Your task to perform on an android device: change timer sound Image 0: 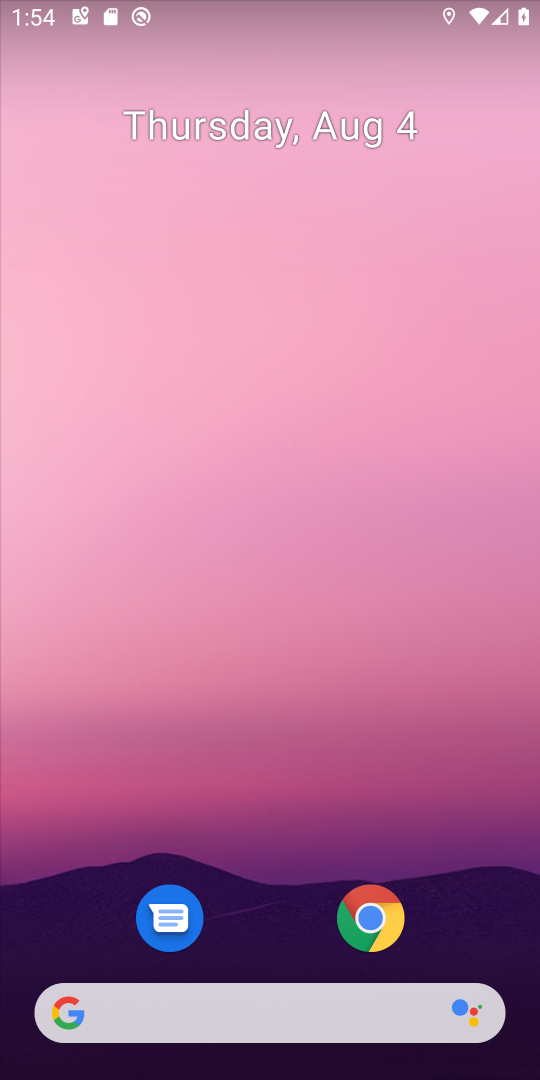
Step 0: drag from (265, 824) to (271, 374)
Your task to perform on an android device: change timer sound Image 1: 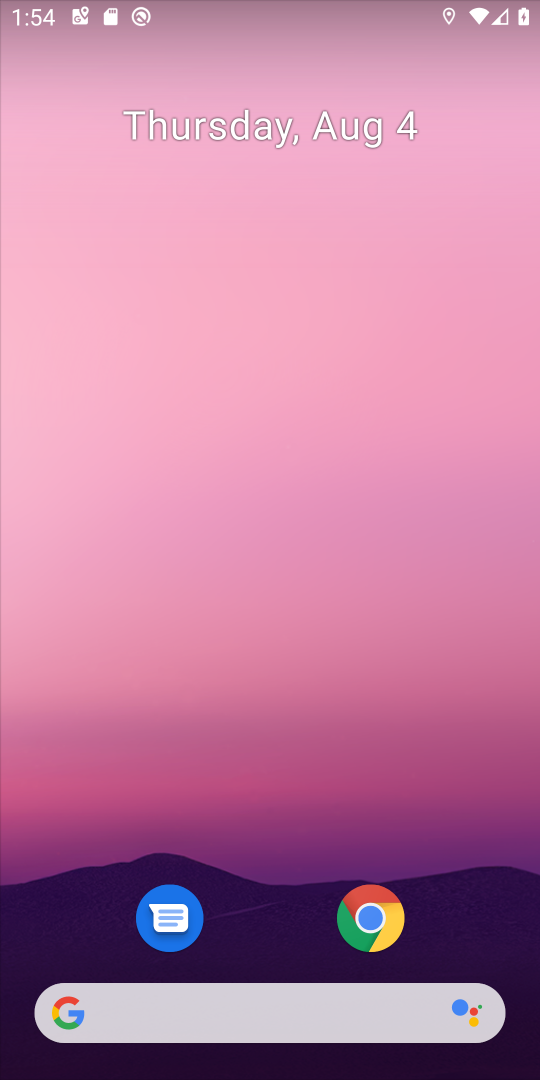
Step 1: drag from (290, 880) to (306, 316)
Your task to perform on an android device: change timer sound Image 2: 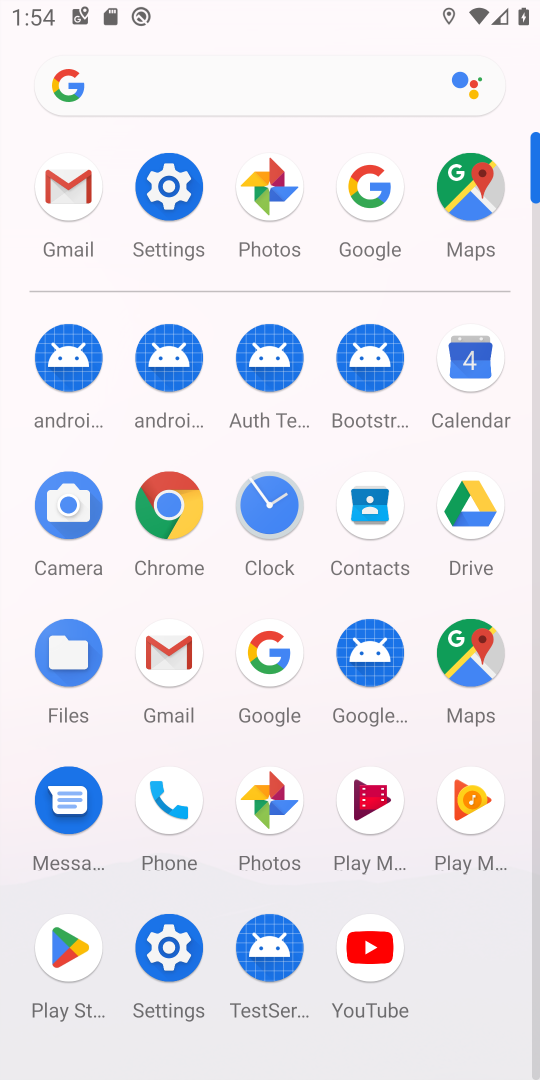
Step 2: click (280, 518)
Your task to perform on an android device: change timer sound Image 3: 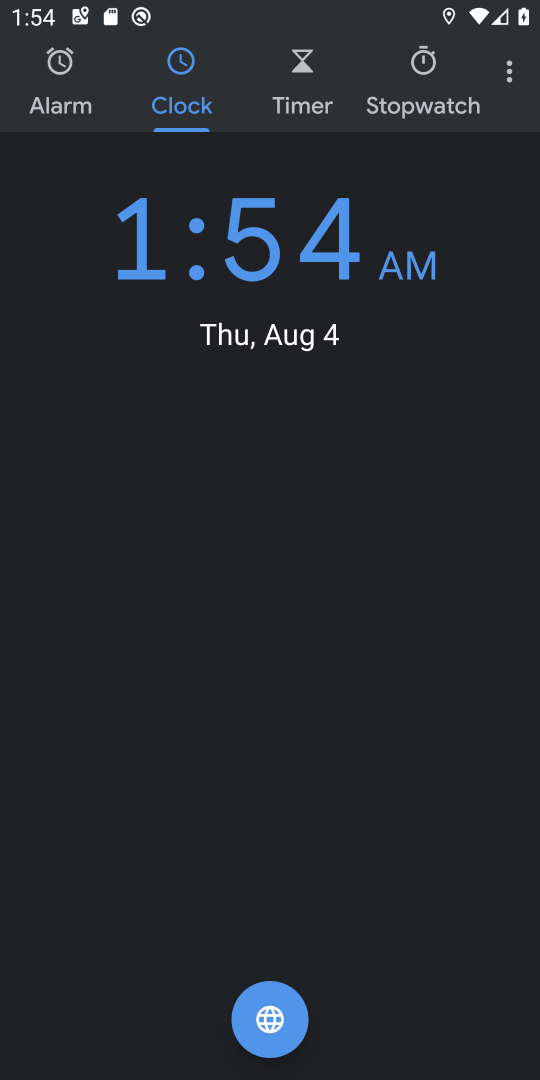
Step 3: click (503, 91)
Your task to perform on an android device: change timer sound Image 4: 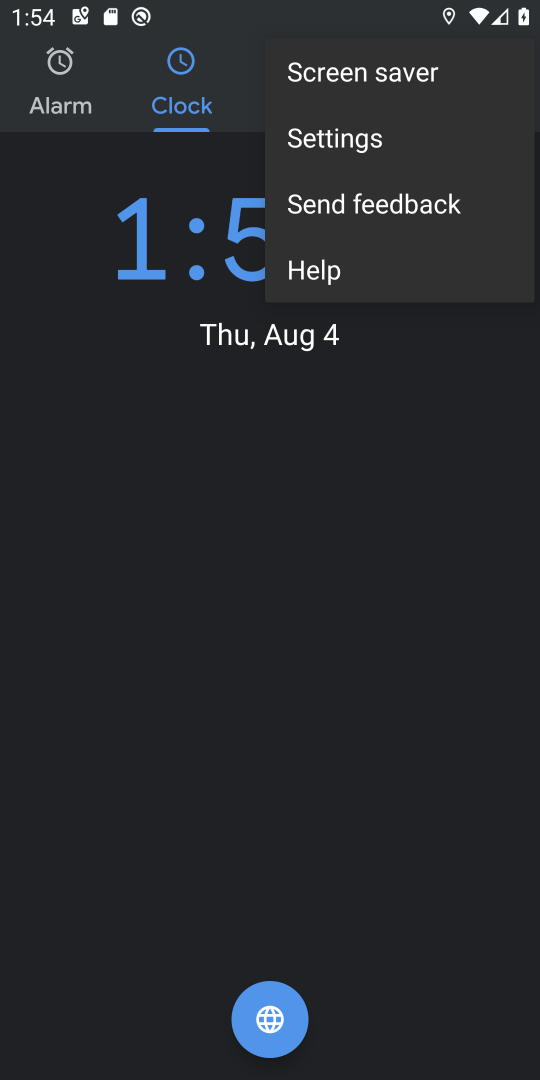
Step 4: click (392, 154)
Your task to perform on an android device: change timer sound Image 5: 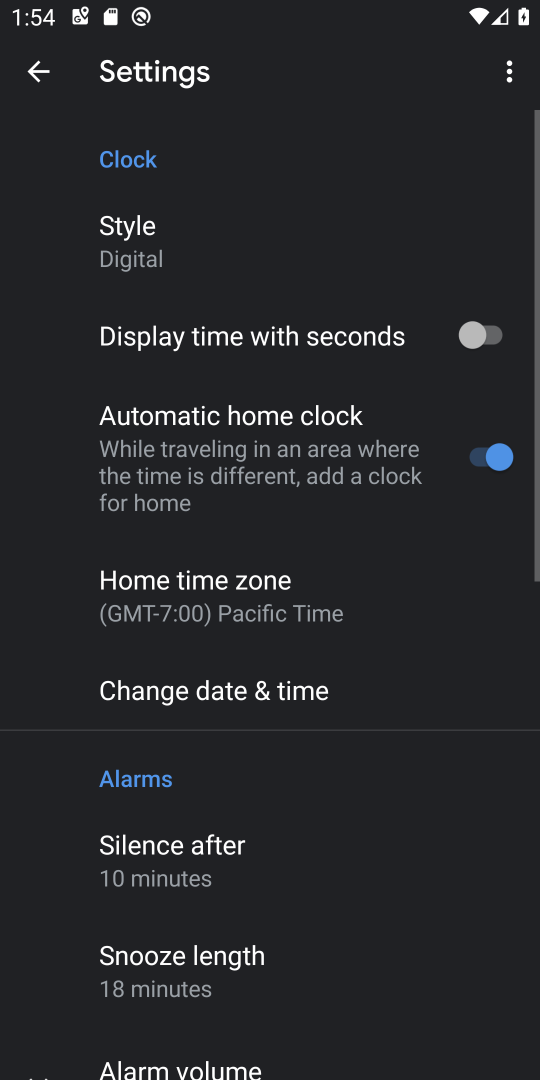
Step 5: drag from (267, 850) to (273, 341)
Your task to perform on an android device: change timer sound Image 6: 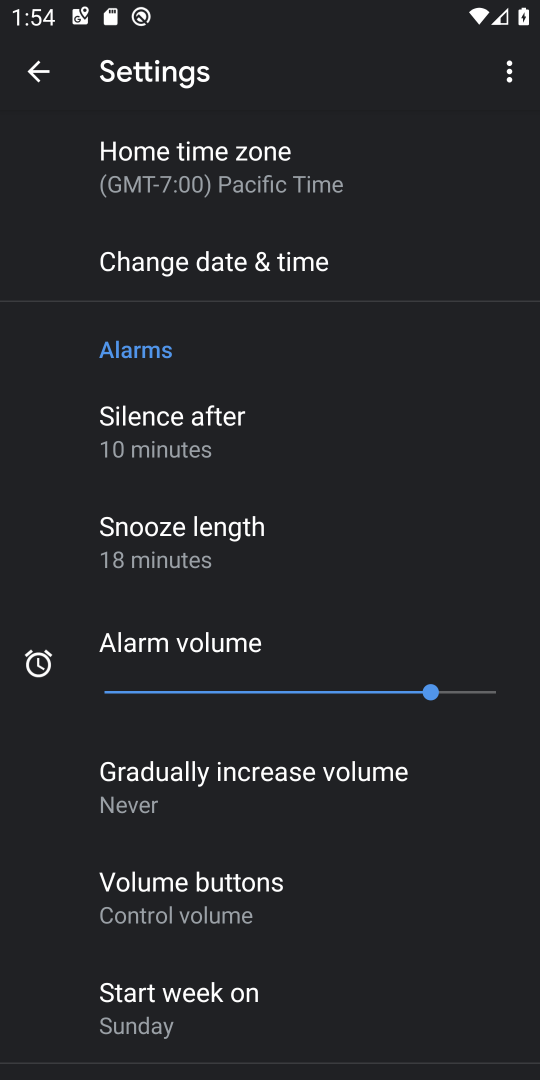
Step 6: drag from (302, 887) to (299, 459)
Your task to perform on an android device: change timer sound Image 7: 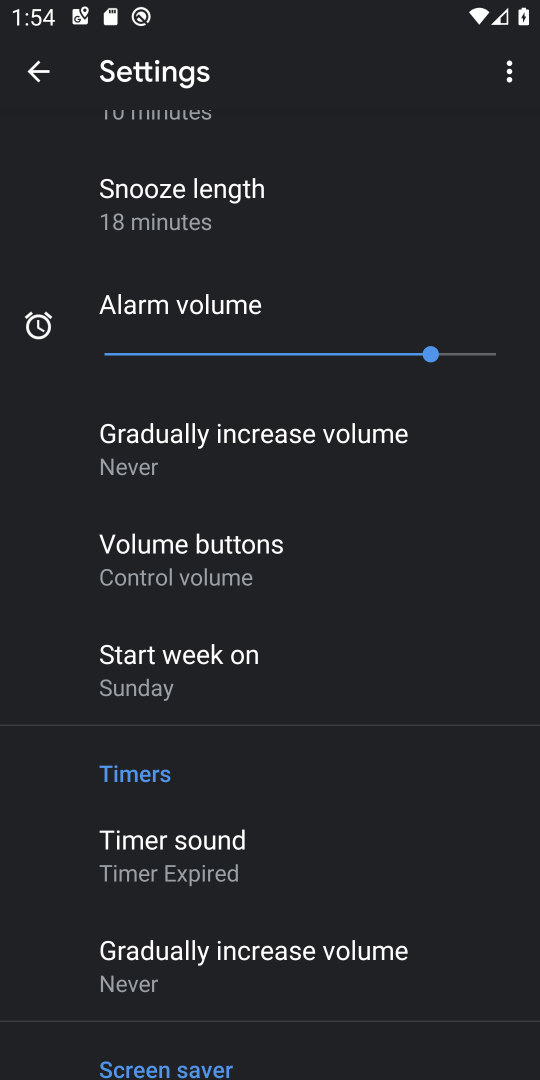
Step 7: click (243, 833)
Your task to perform on an android device: change timer sound Image 8: 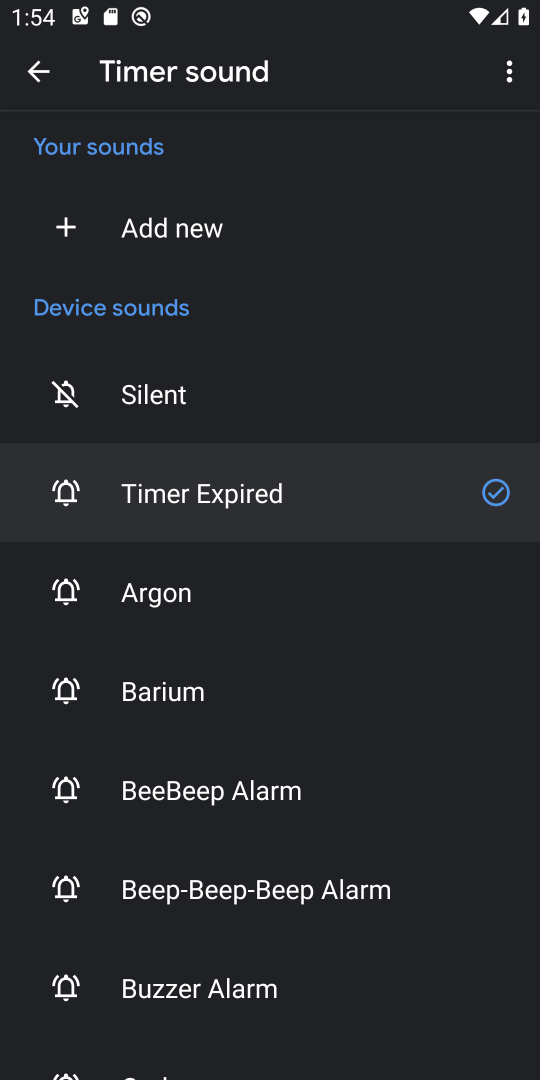
Step 8: click (267, 748)
Your task to perform on an android device: change timer sound Image 9: 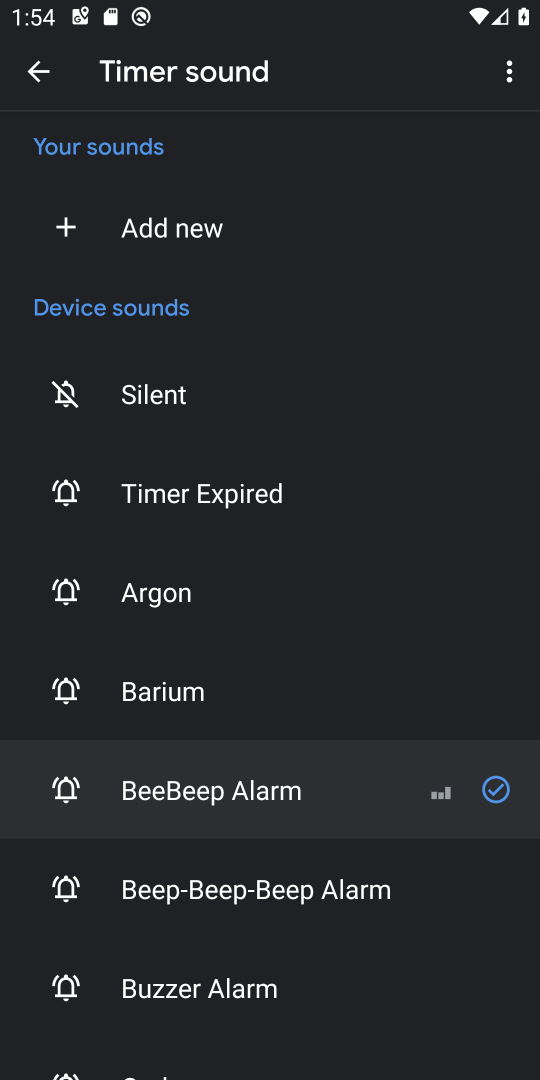
Step 9: task complete